Your task to perform on an android device: Open sound settings Image 0: 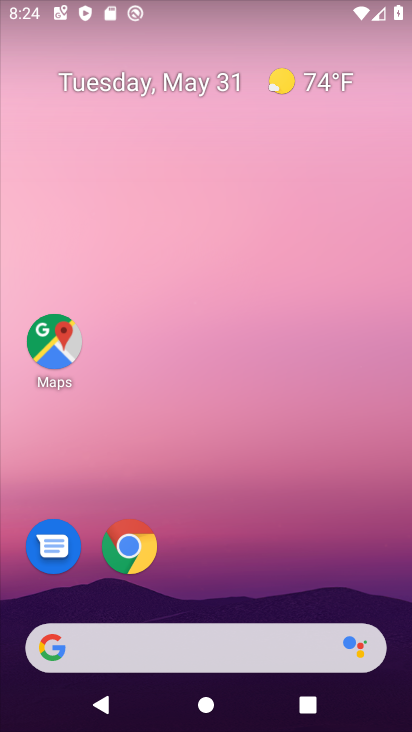
Step 0: drag from (210, 581) to (288, 61)
Your task to perform on an android device: Open sound settings Image 1: 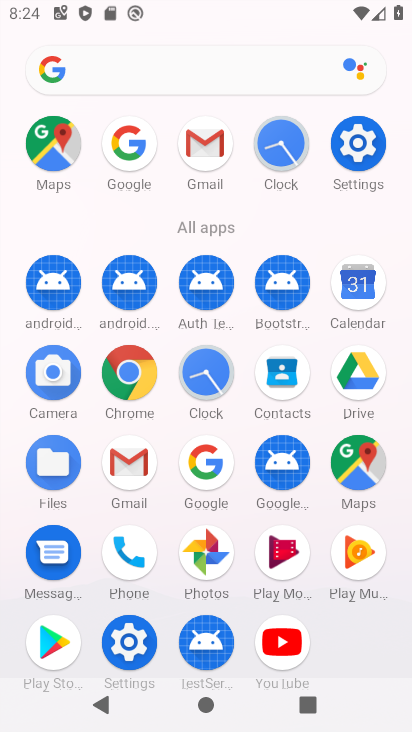
Step 1: click (364, 143)
Your task to perform on an android device: Open sound settings Image 2: 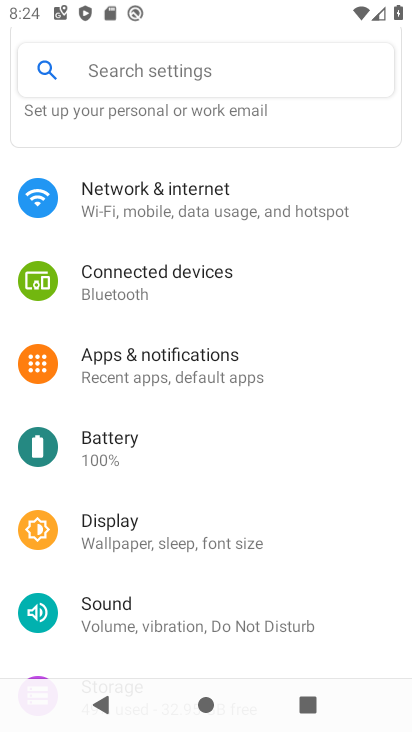
Step 2: click (132, 614)
Your task to perform on an android device: Open sound settings Image 3: 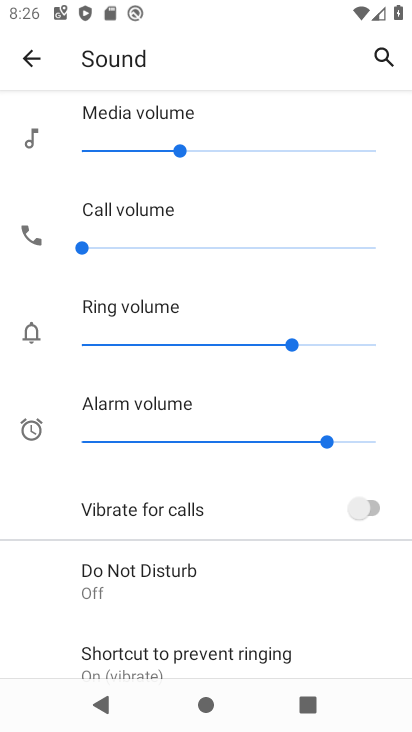
Step 3: task complete